Your task to perform on an android device: Open privacy settings Image 0: 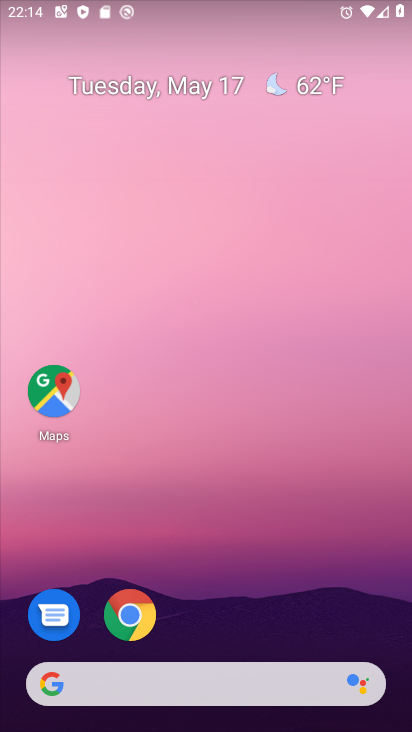
Step 0: press home button
Your task to perform on an android device: Open privacy settings Image 1: 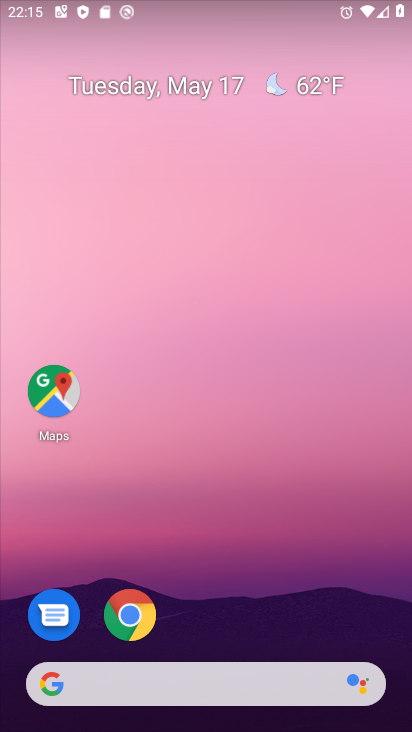
Step 1: drag from (273, 602) to (138, 100)
Your task to perform on an android device: Open privacy settings Image 2: 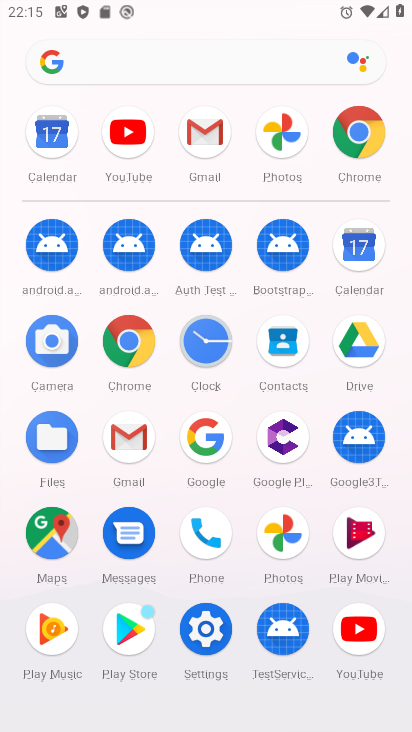
Step 2: click (126, 327)
Your task to perform on an android device: Open privacy settings Image 3: 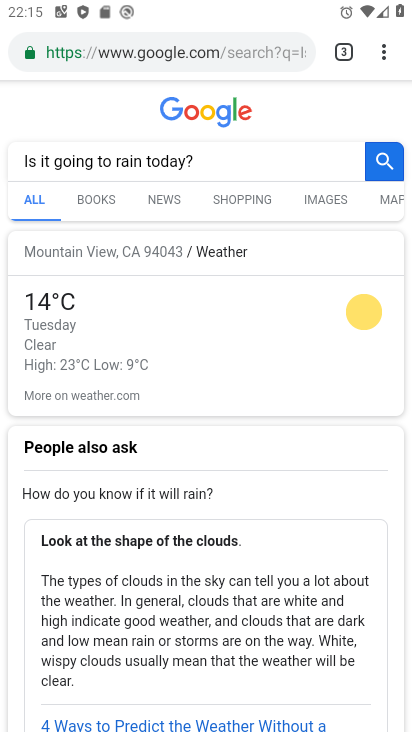
Step 3: drag from (373, 44) to (175, 576)
Your task to perform on an android device: Open privacy settings Image 4: 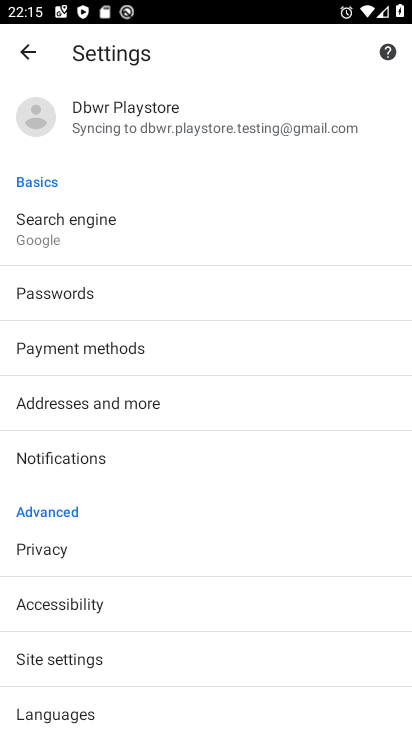
Step 4: click (36, 546)
Your task to perform on an android device: Open privacy settings Image 5: 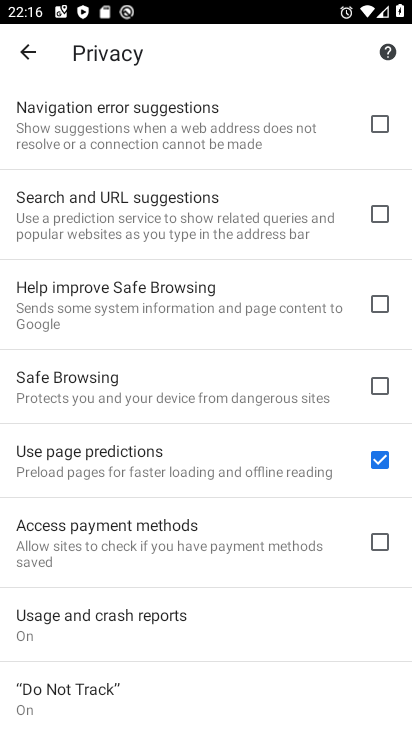
Step 5: task complete